Your task to perform on an android device: change the clock display to analog Image 0: 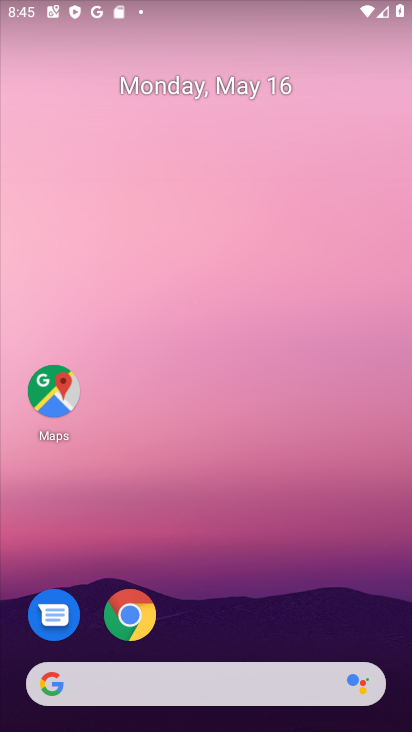
Step 0: drag from (86, 728) to (279, 142)
Your task to perform on an android device: change the clock display to analog Image 1: 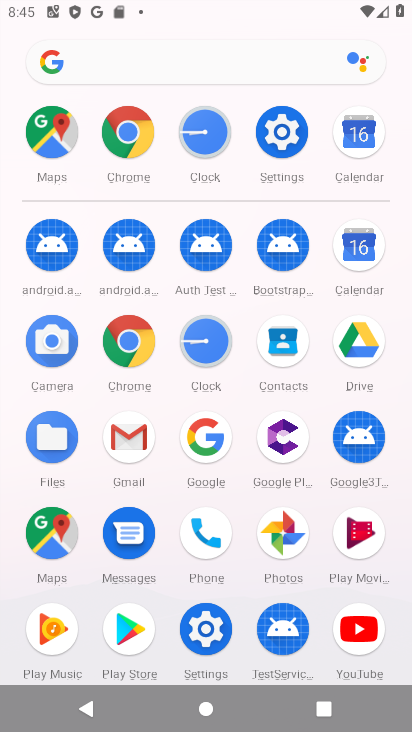
Step 1: click (213, 130)
Your task to perform on an android device: change the clock display to analog Image 2: 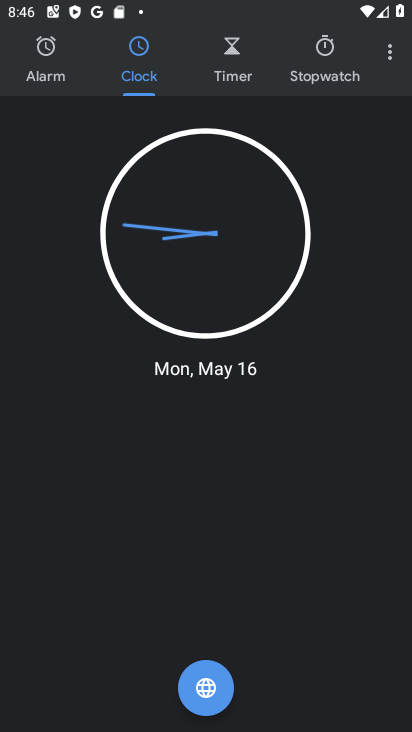
Step 2: click (385, 47)
Your task to perform on an android device: change the clock display to analog Image 3: 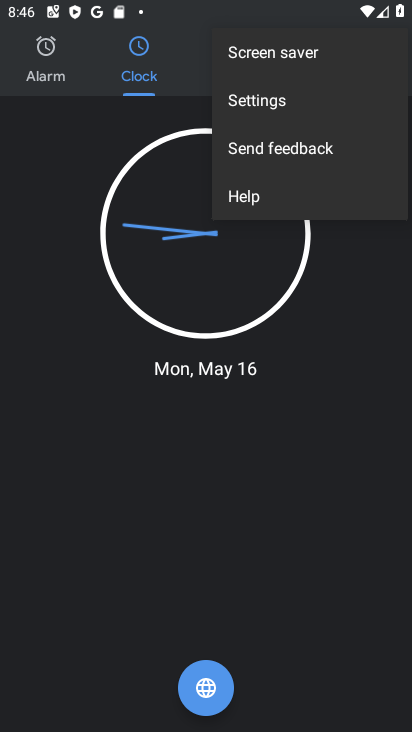
Step 3: click (290, 95)
Your task to perform on an android device: change the clock display to analog Image 4: 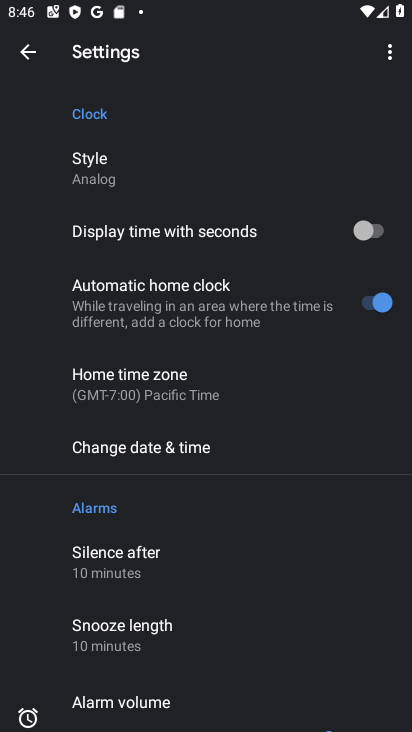
Step 4: task complete